Your task to perform on an android device: Go to internet settings Image 0: 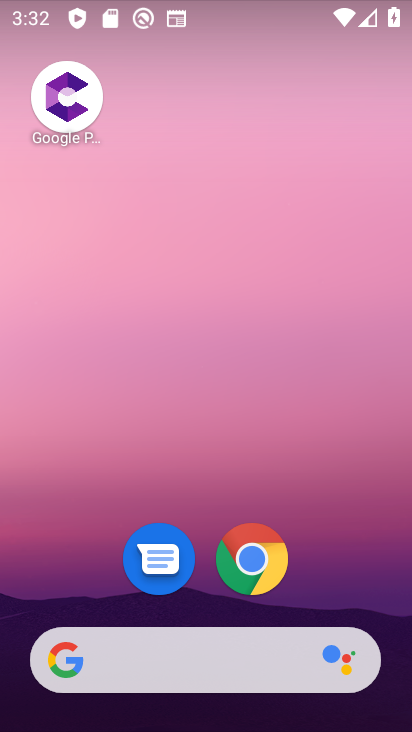
Step 0: drag from (301, 403) to (170, 67)
Your task to perform on an android device: Go to internet settings Image 1: 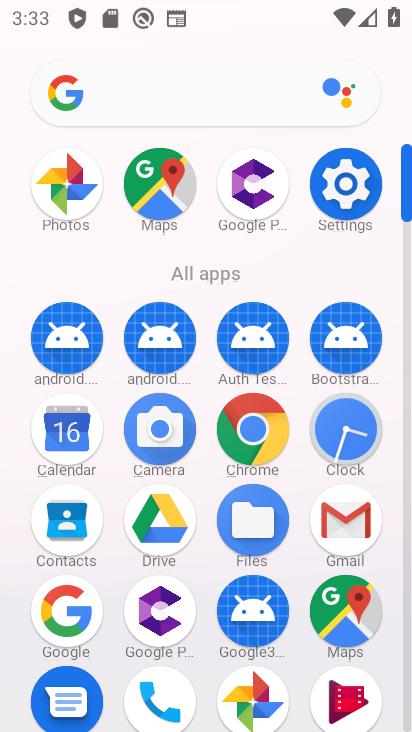
Step 1: click (329, 196)
Your task to perform on an android device: Go to internet settings Image 2: 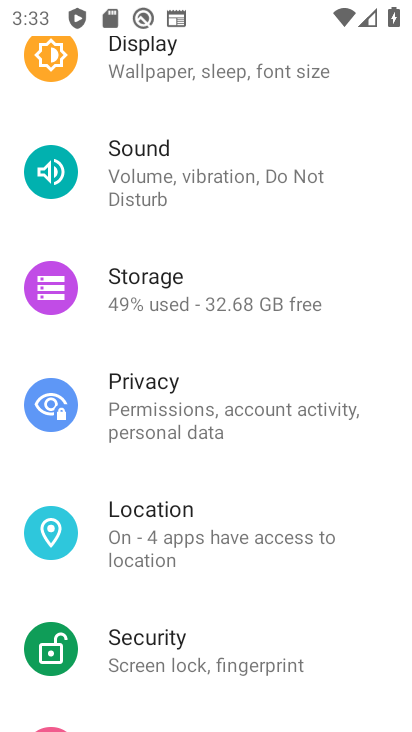
Step 2: drag from (206, 445) to (183, 168)
Your task to perform on an android device: Go to internet settings Image 3: 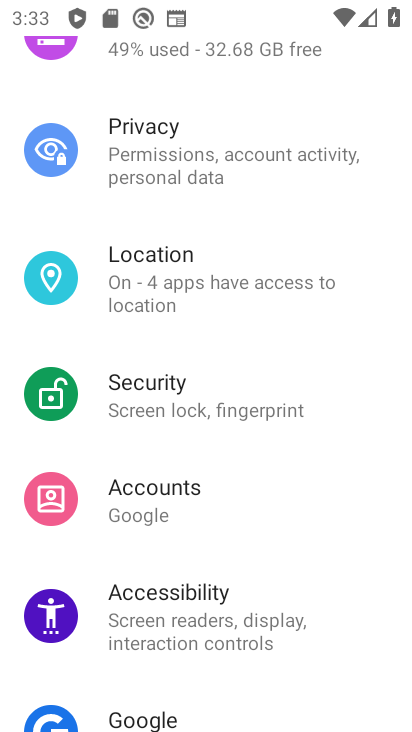
Step 3: drag from (170, 408) to (216, 160)
Your task to perform on an android device: Go to internet settings Image 4: 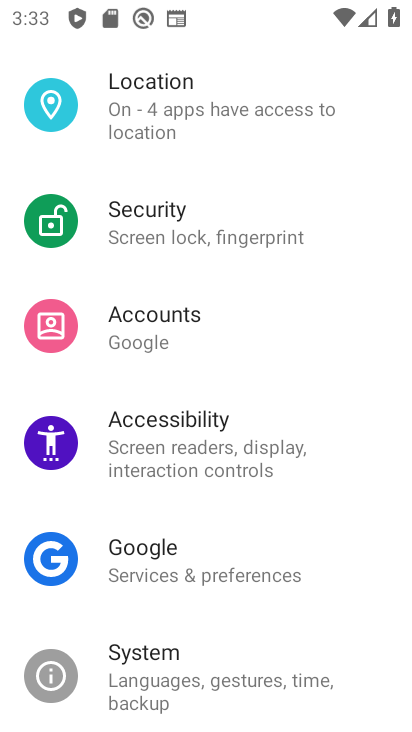
Step 4: drag from (144, 218) to (171, 500)
Your task to perform on an android device: Go to internet settings Image 5: 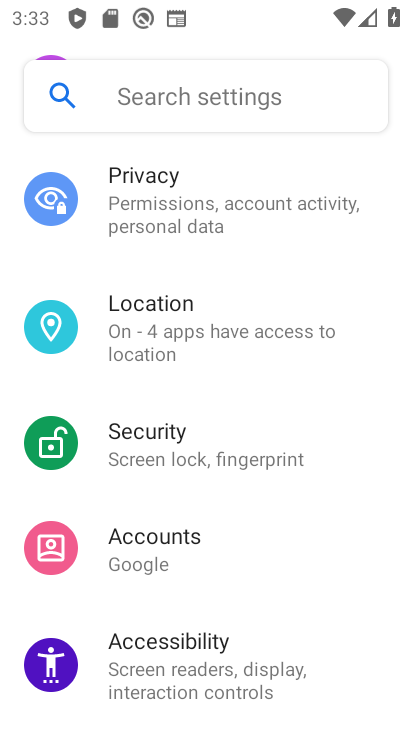
Step 5: drag from (201, 310) to (221, 528)
Your task to perform on an android device: Go to internet settings Image 6: 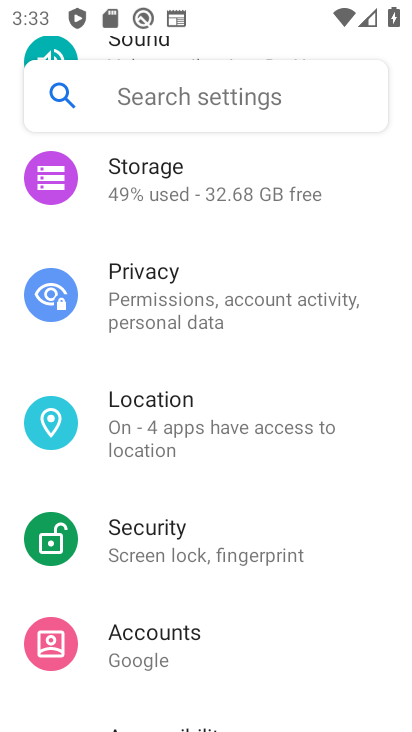
Step 6: drag from (159, 243) to (177, 564)
Your task to perform on an android device: Go to internet settings Image 7: 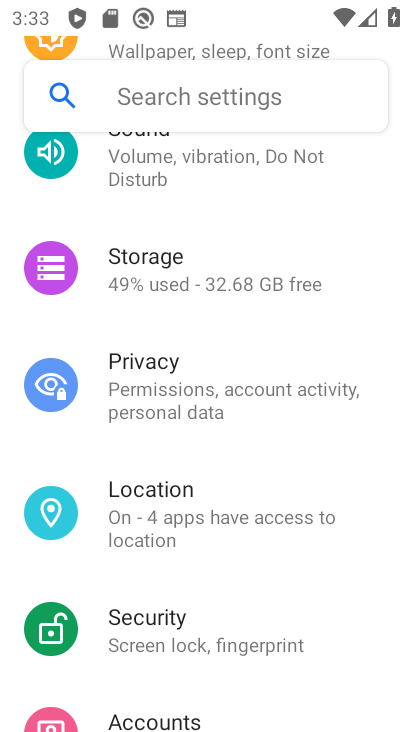
Step 7: drag from (161, 257) to (180, 489)
Your task to perform on an android device: Go to internet settings Image 8: 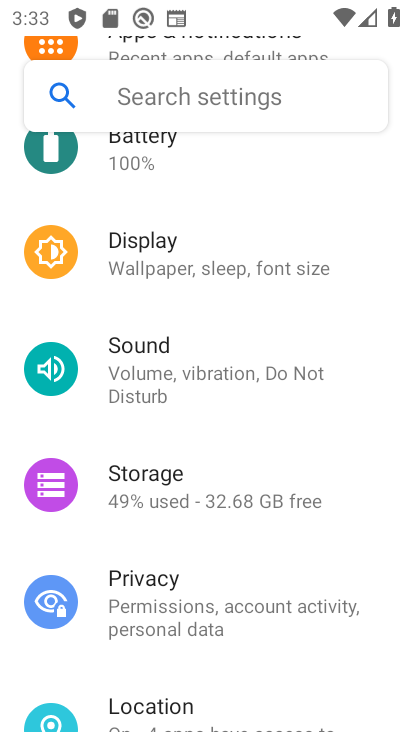
Step 8: drag from (192, 226) to (218, 521)
Your task to perform on an android device: Go to internet settings Image 9: 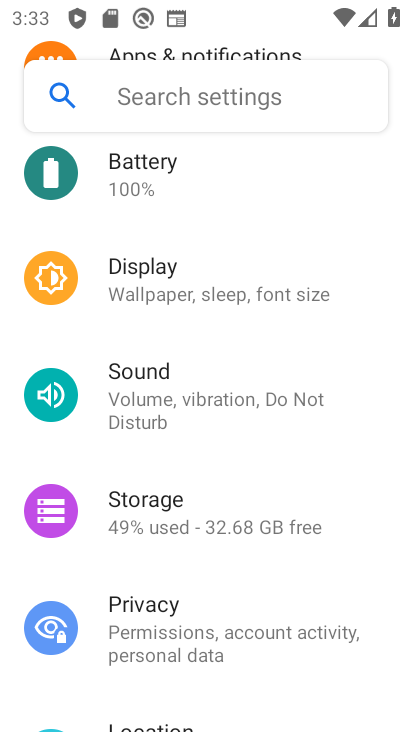
Step 9: drag from (218, 532) to (262, 220)
Your task to perform on an android device: Go to internet settings Image 10: 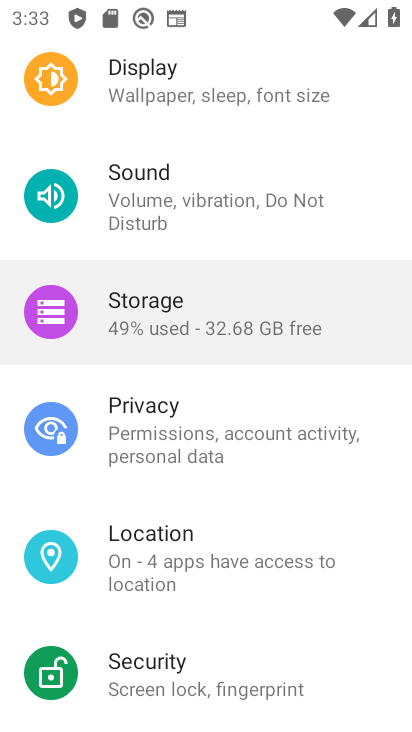
Step 10: drag from (265, 462) to (356, 237)
Your task to perform on an android device: Go to internet settings Image 11: 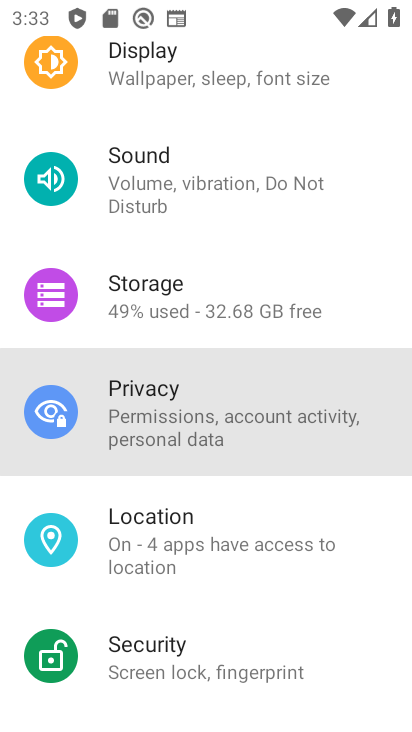
Step 11: drag from (265, 483) to (259, 236)
Your task to perform on an android device: Go to internet settings Image 12: 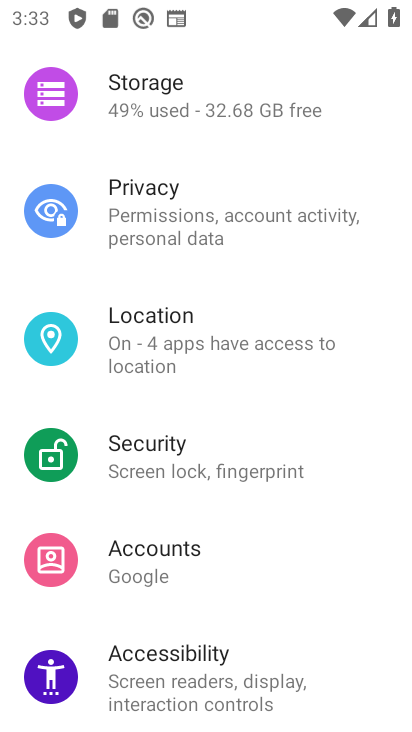
Step 12: drag from (173, 445) to (233, 224)
Your task to perform on an android device: Go to internet settings Image 13: 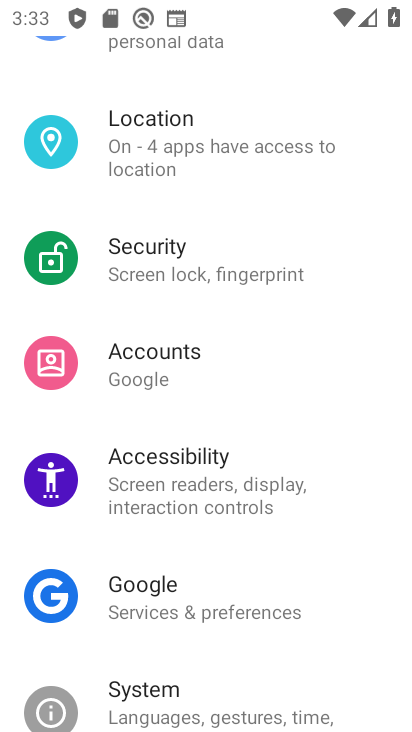
Step 13: drag from (219, 438) to (253, 173)
Your task to perform on an android device: Go to internet settings Image 14: 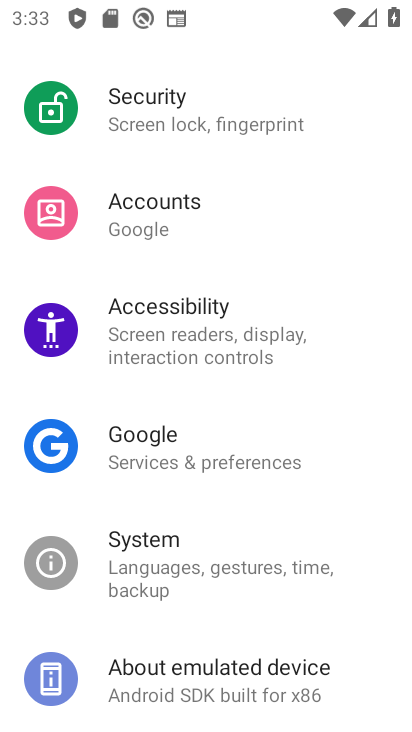
Step 14: drag from (244, 85) to (244, 39)
Your task to perform on an android device: Go to internet settings Image 15: 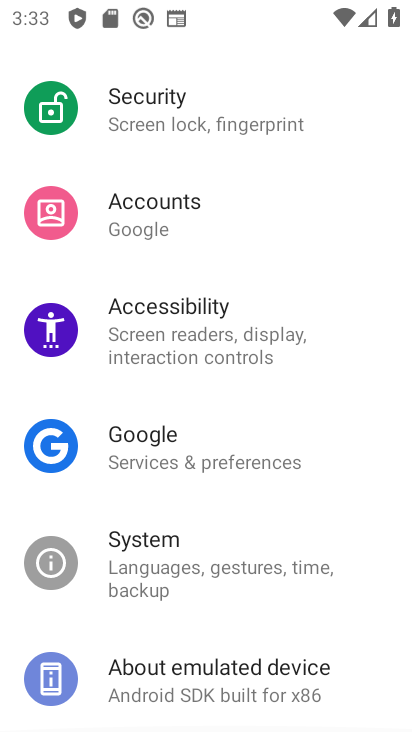
Step 15: drag from (235, 280) to (286, 74)
Your task to perform on an android device: Go to internet settings Image 16: 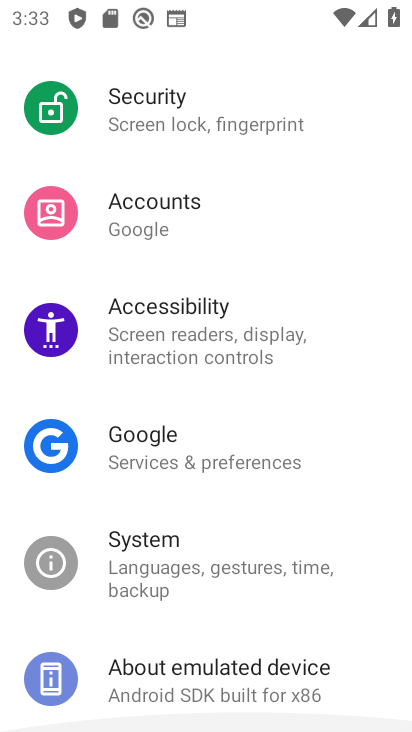
Step 16: click (299, 144)
Your task to perform on an android device: Go to internet settings Image 17: 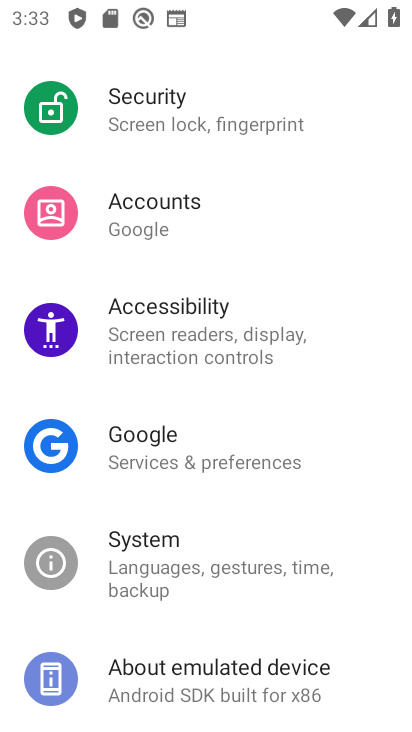
Step 17: drag from (203, 488) to (191, 222)
Your task to perform on an android device: Go to internet settings Image 18: 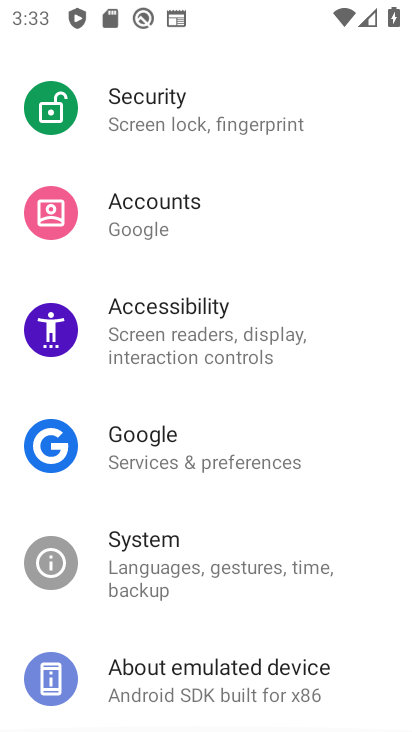
Step 18: click (192, 174)
Your task to perform on an android device: Go to internet settings Image 19: 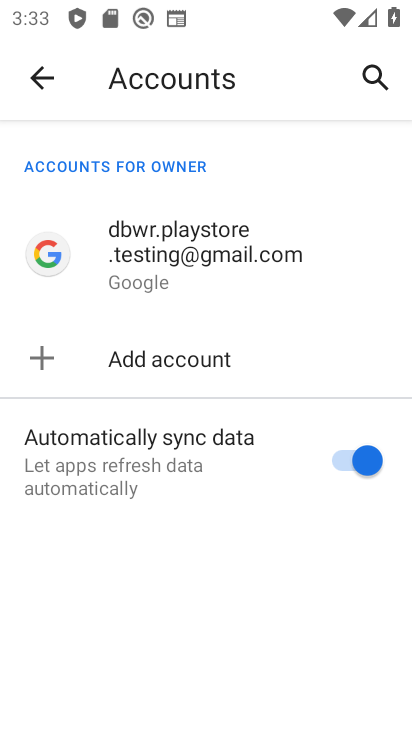
Step 19: click (40, 79)
Your task to perform on an android device: Go to internet settings Image 20: 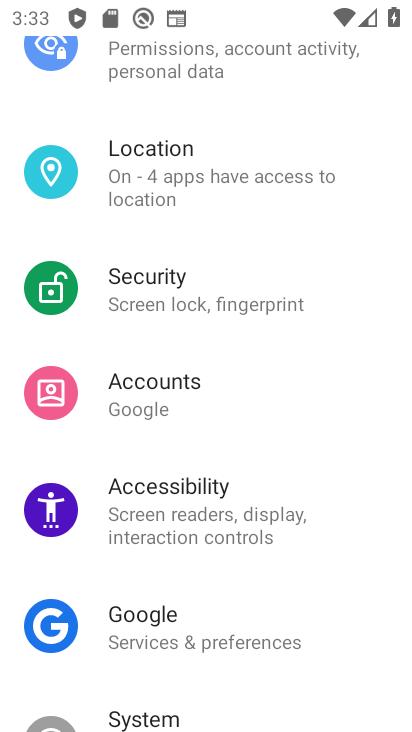
Step 20: drag from (174, 157) to (216, 481)
Your task to perform on an android device: Go to internet settings Image 21: 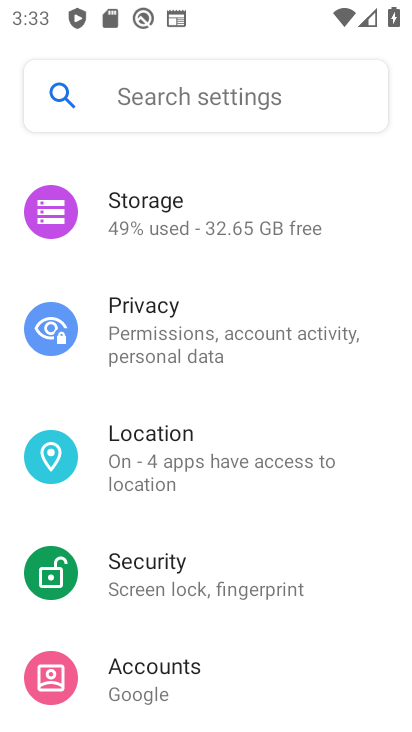
Step 21: drag from (214, 184) to (195, 524)
Your task to perform on an android device: Go to internet settings Image 22: 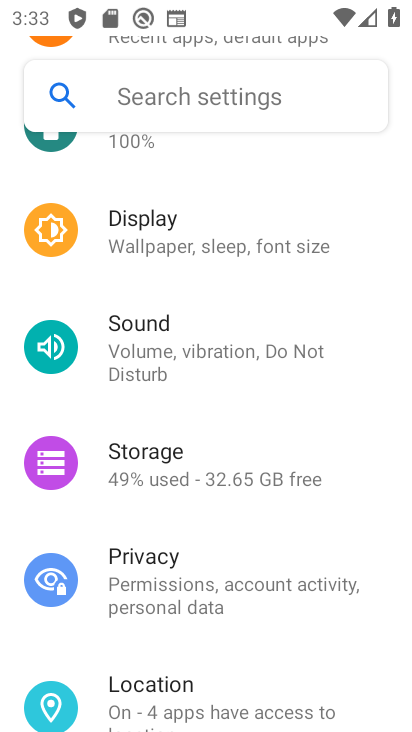
Step 22: drag from (244, 214) to (264, 629)
Your task to perform on an android device: Go to internet settings Image 23: 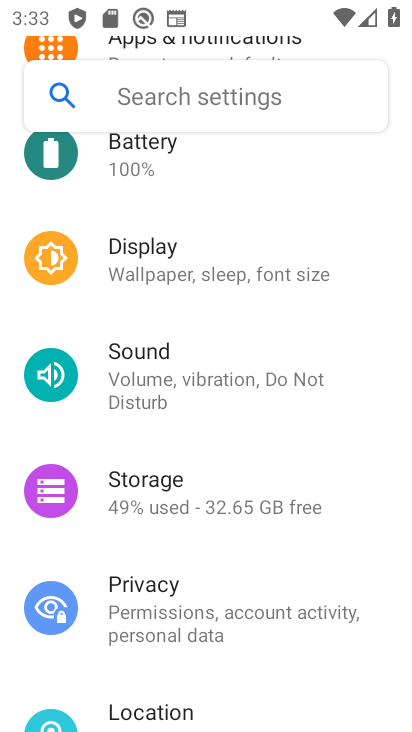
Step 23: drag from (243, 402) to (243, 635)
Your task to perform on an android device: Go to internet settings Image 24: 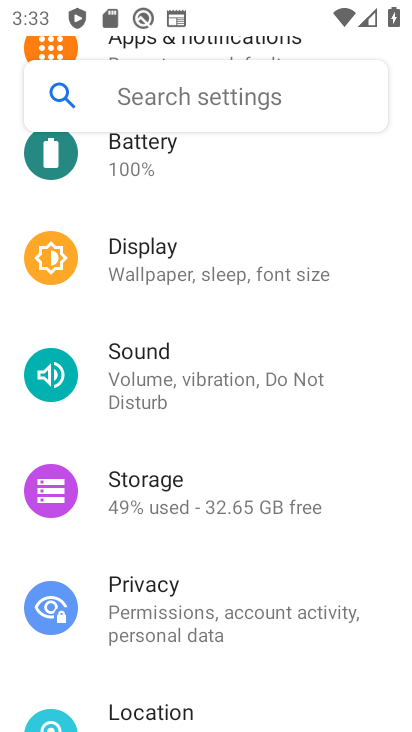
Step 24: drag from (254, 397) to (261, 674)
Your task to perform on an android device: Go to internet settings Image 25: 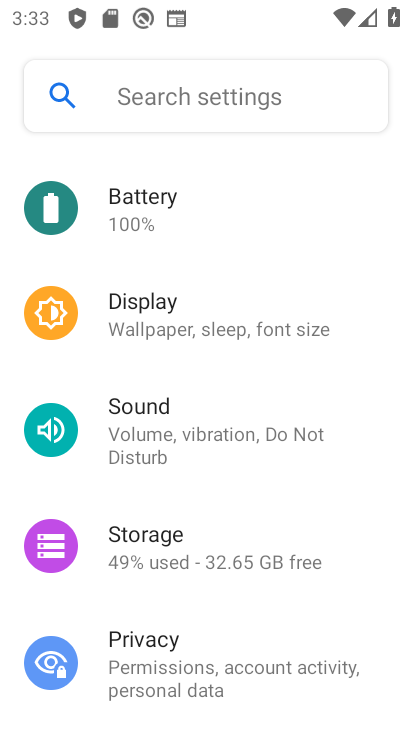
Step 25: drag from (238, 379) to (218, 596)
Your task to perform on an android device: Go to internet settings Image 26: 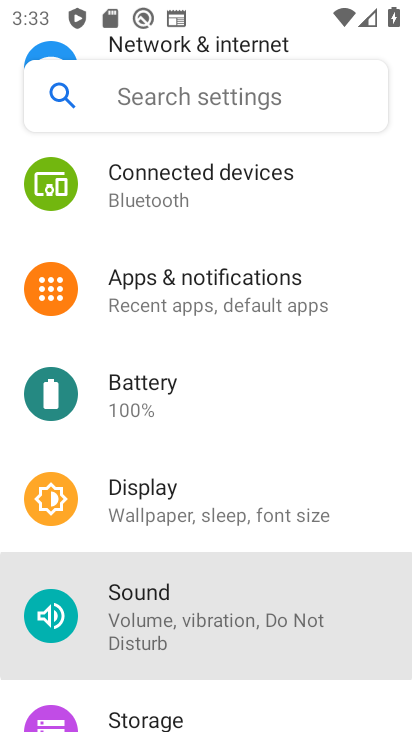
Step 26: drag from (213, 351) to (216, 621)
Your task to perform on an android device: Go to internet settings Image 27: 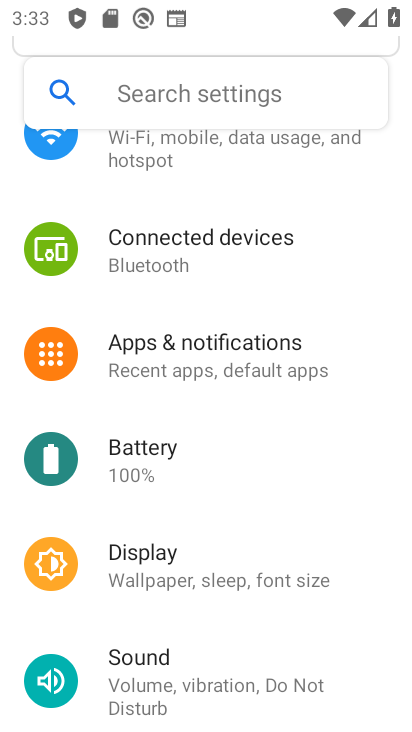
Step 27: drag from (221, 294) to (221, 576)
Your task to perform on an android device: Go to internet settings Image 28: 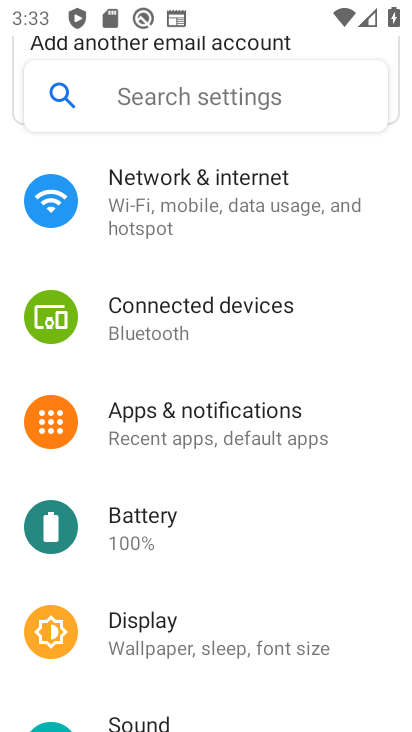
Step 28: click (182, 194)
Your task to perform on an android device: Go to internet settings Image 29: 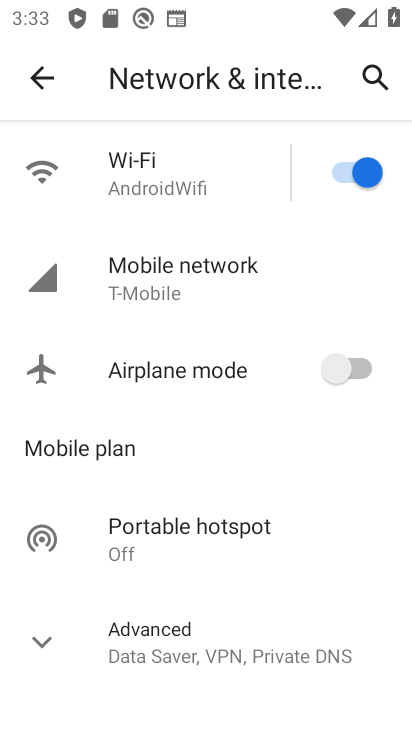
Step 29: task complete